Your task to perform on an android device: set an alarm Image 0: 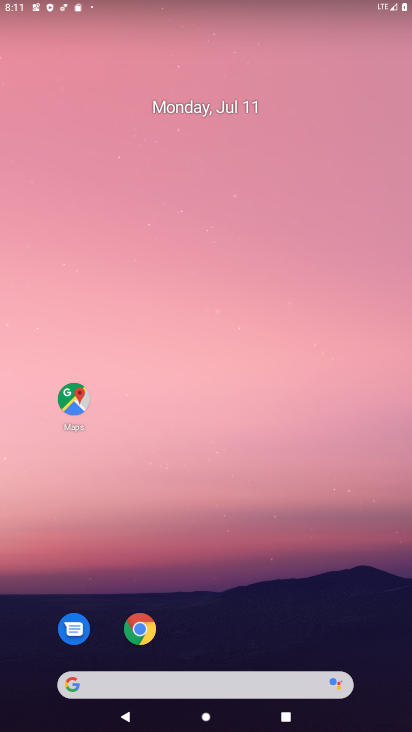
Step 0: drag from (216, 628) to (212, 71)
Your task to perform on an android device: set an alarm Image 1: 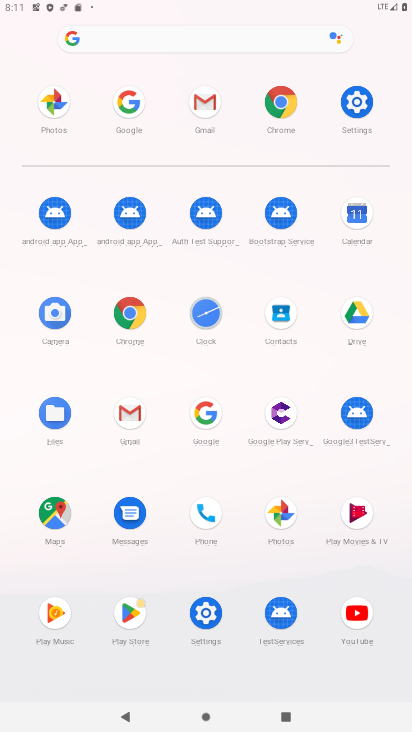
Step 1: click (207, 312)
Your task to perform on an android device: set an alarm Image 2: 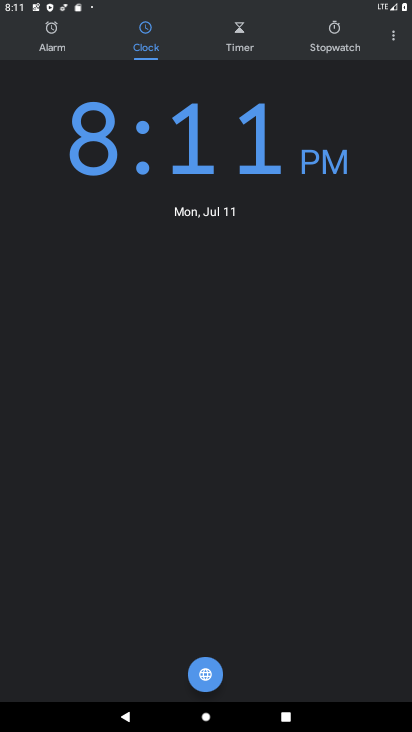
Step 2: click (53, 33)
Your task to perform on an android device: set an alarm Image 3: 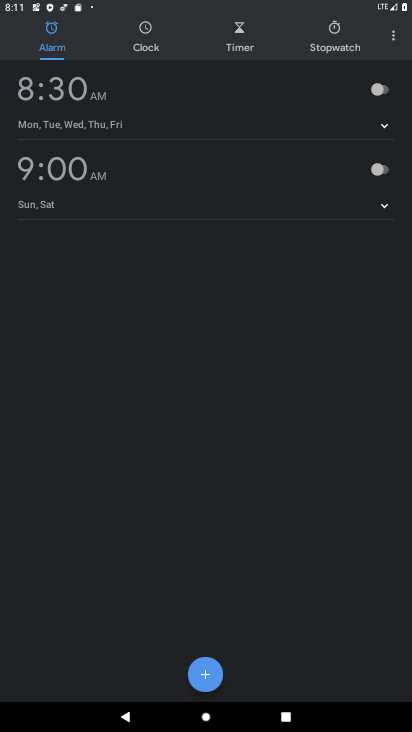
Step 3: click (372, 97)
Your task to perform on an android device: set an alarm Image 4: 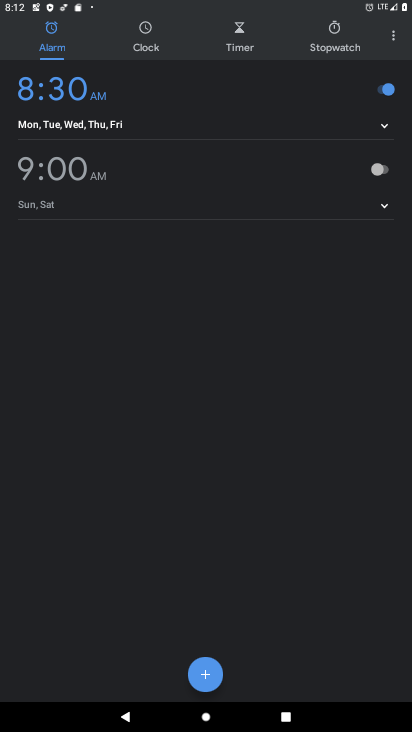
Step 4: task complete